Your task to perform on an android device: Clear the cart on ebay. Image 0: 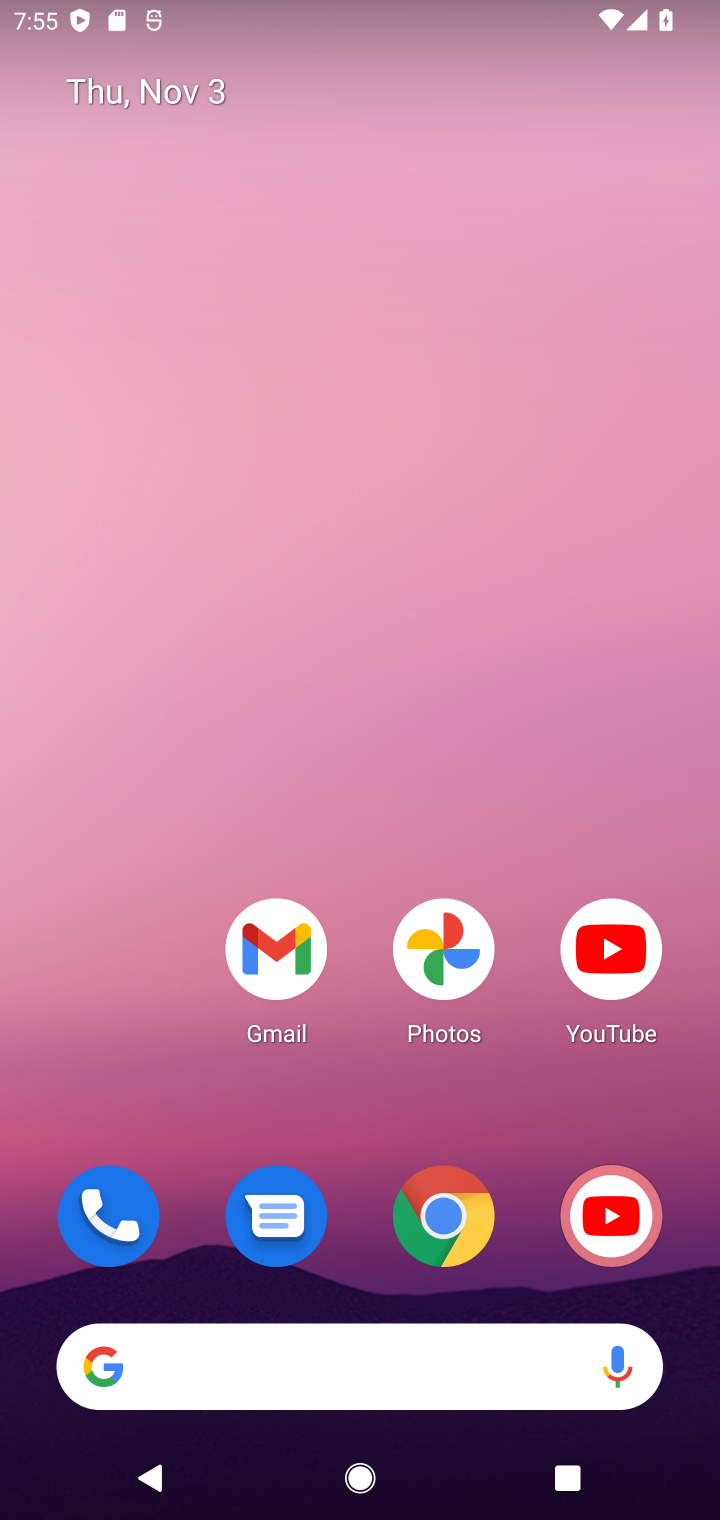
Step 0: click (449, 1244)
Your task to perform on an android device: Clear the cart on ebay. Image 1: 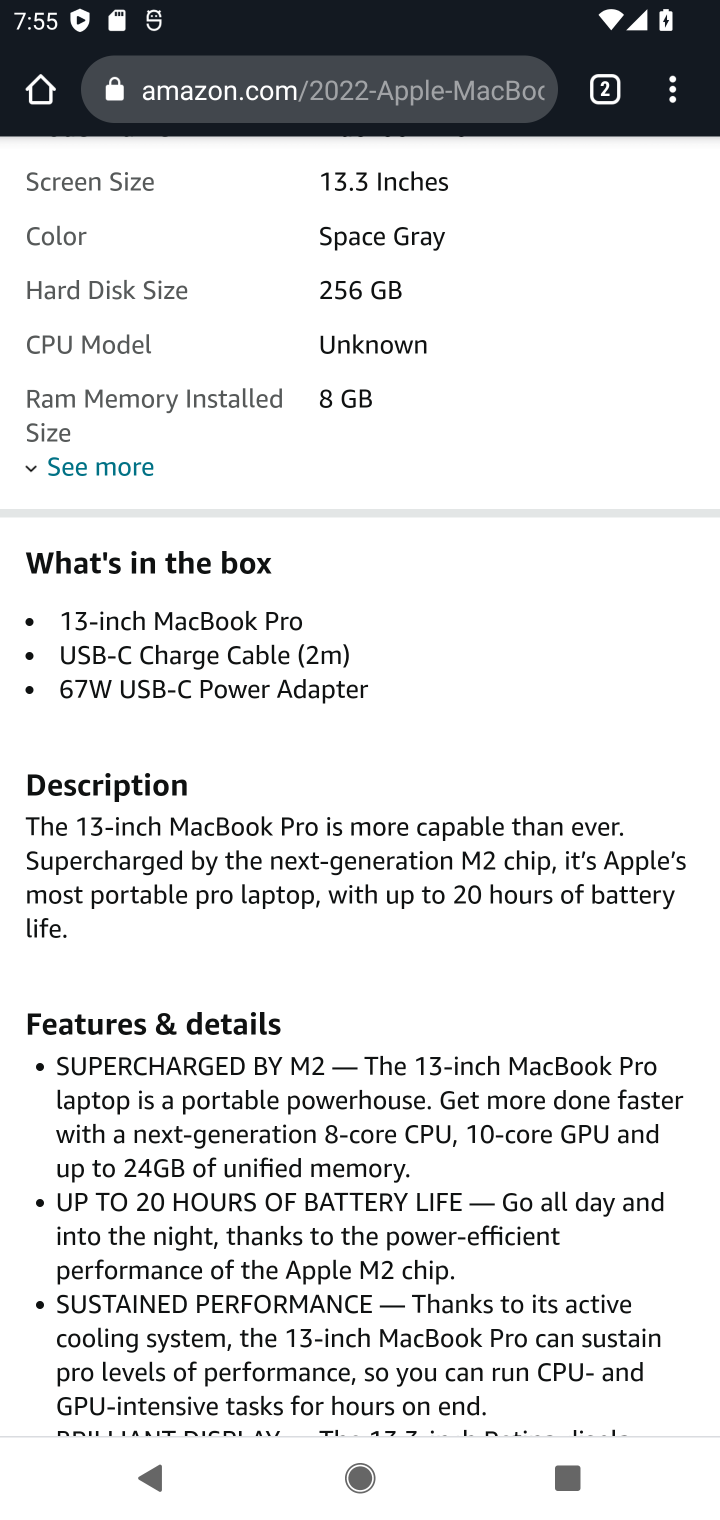
Step 1: click (610, 100)
Your task to perform on an android device: Clear the cart on ebay. Image 2: 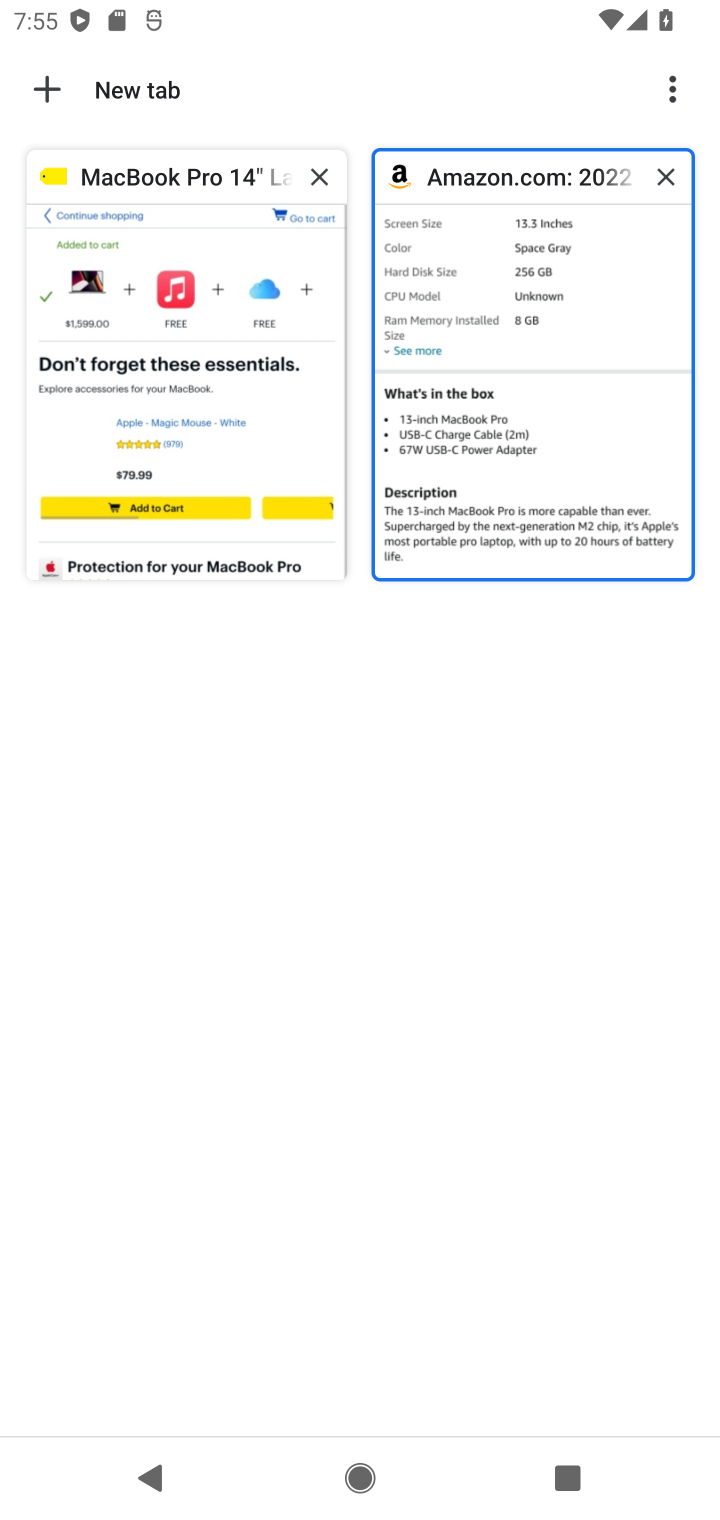
Step 2: click (38, 85)
Your task to perform on an android device: Clear the cart on ebay. Image 3: 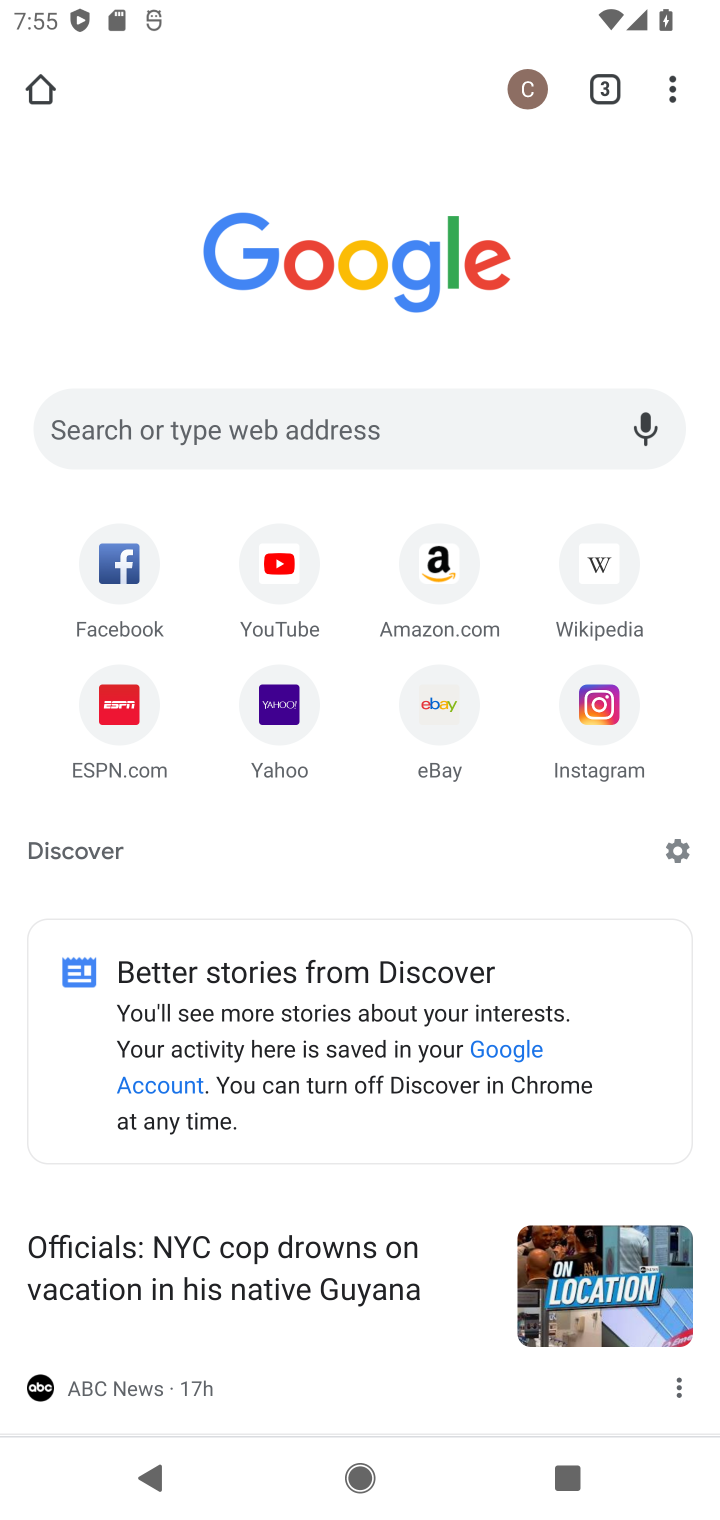
Step 3: click (440, 722)
Your task to perform on an android device: Clear the cart on ebay. Image 4: 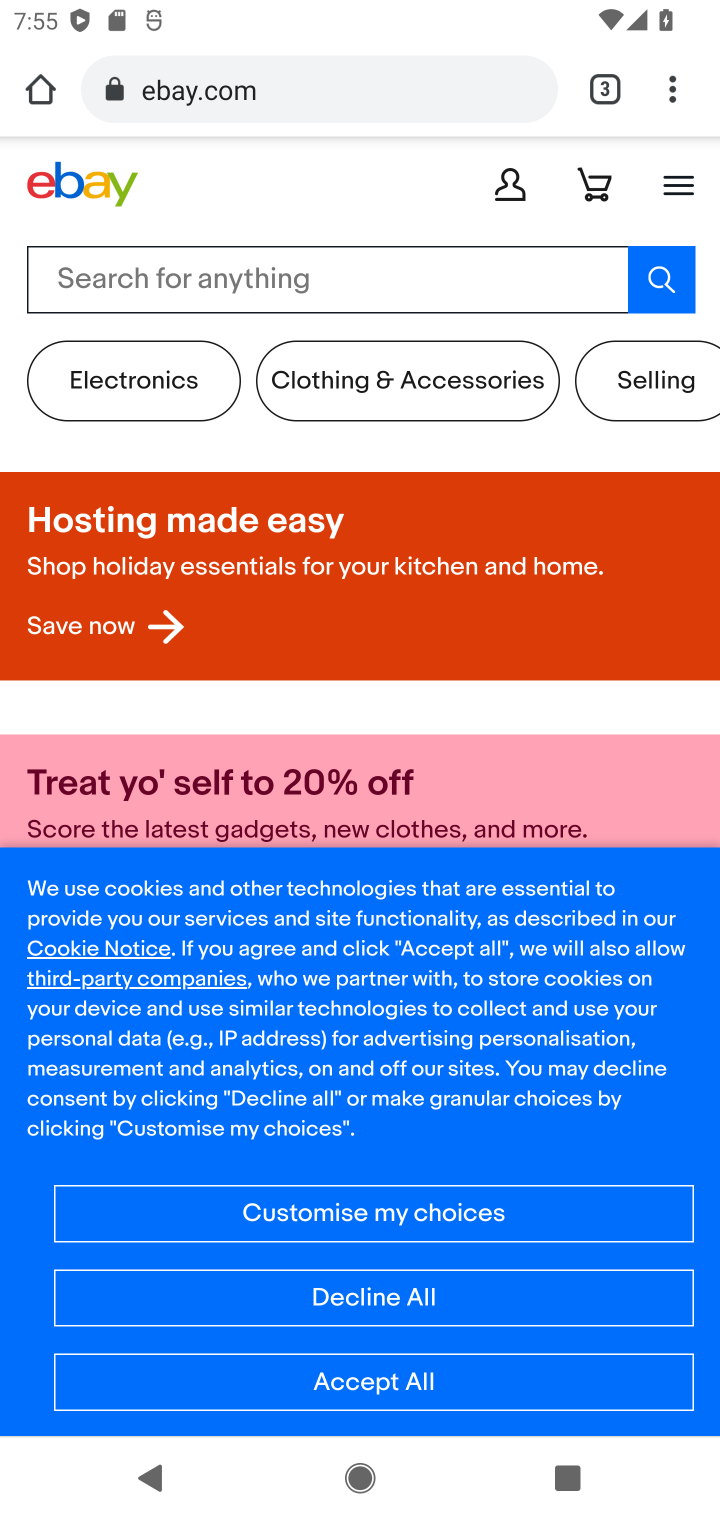
Step 4: click (600, 195)
Your task to perform on an android device: Clear the cart on ebay. Image 5: 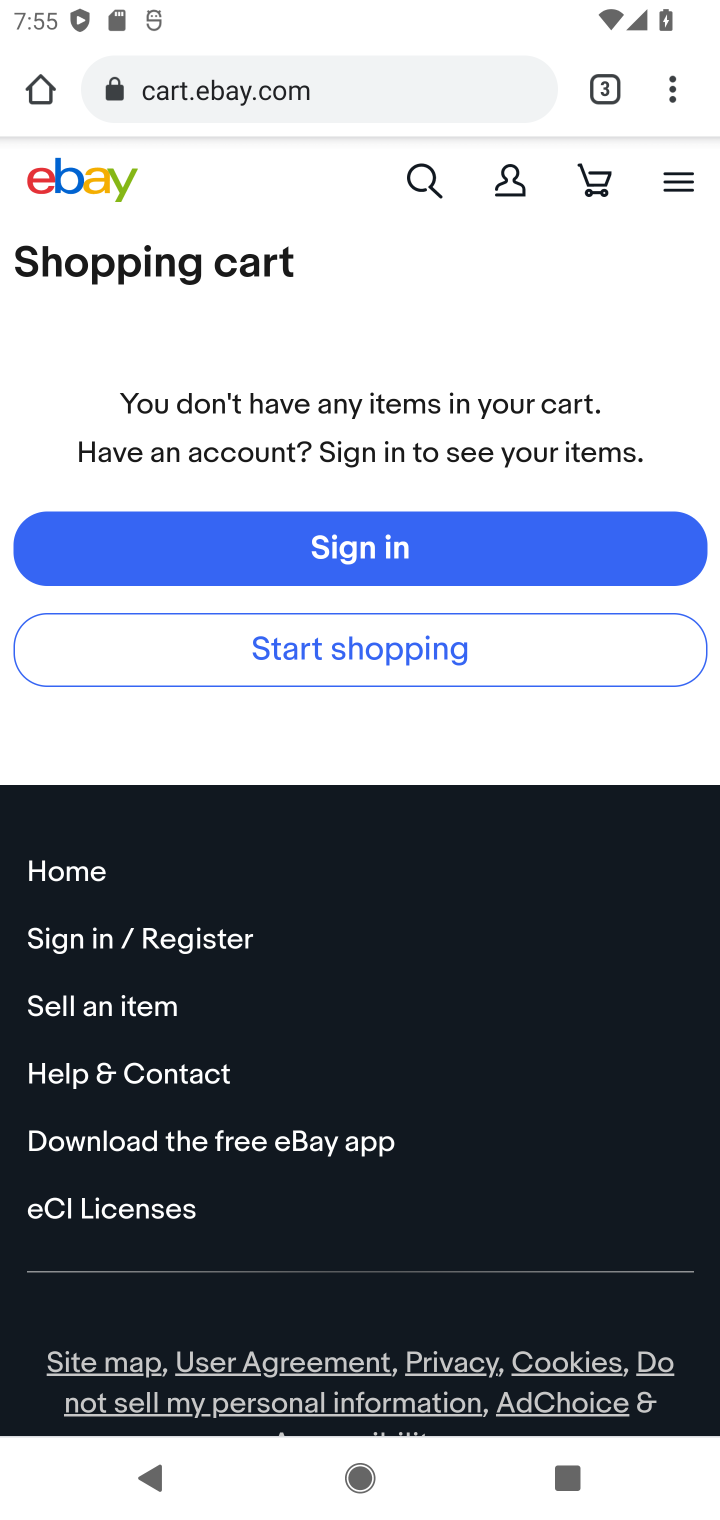
Step 5: task complete